Your task to perform on an android device: toggle translation in the chrome app Image 0: 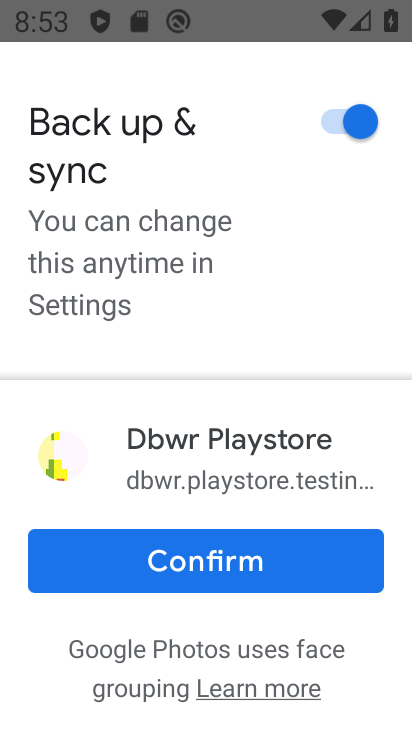
Step 0: press home button
Your task to perform on an android device: toggle translation in the chrome app Image 1: 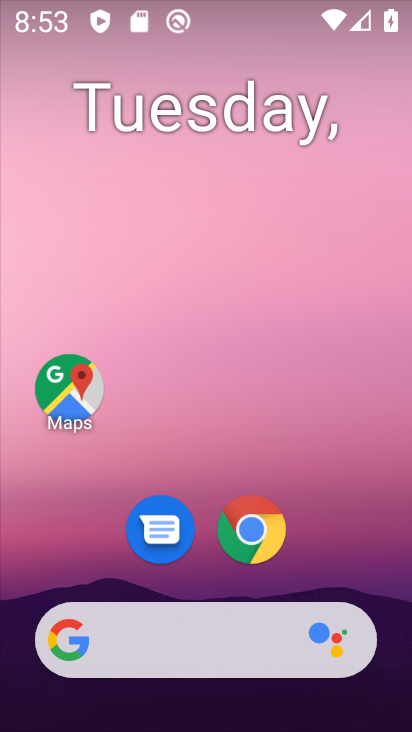
Step 1: click (250, 533)
Your task to perform on an android device: toggle translation in the chrome app Image 2: 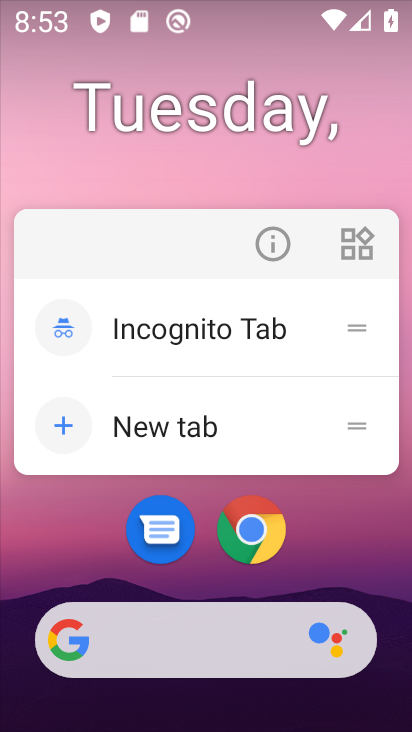
Step 2: click (253, 538)
Your task to perform on an android device: toggle translation in the chrome app Image 3: 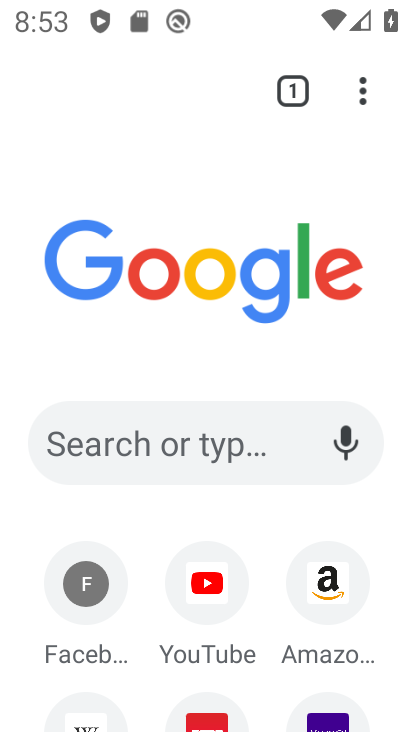
Step 3: click (363, 90)
Your task to perform on an android device: toggle translation in the chrome app Image 4: 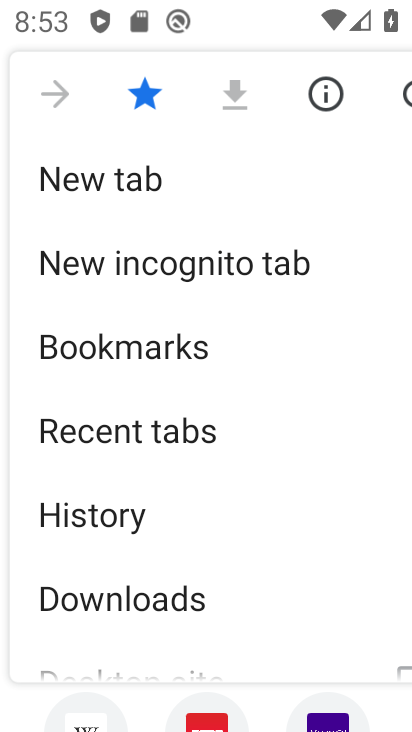
Step 4: drag from (260, 612) to (266, 391)
Your task to perform on an android device: toggle translation in the chrome app Image 5: 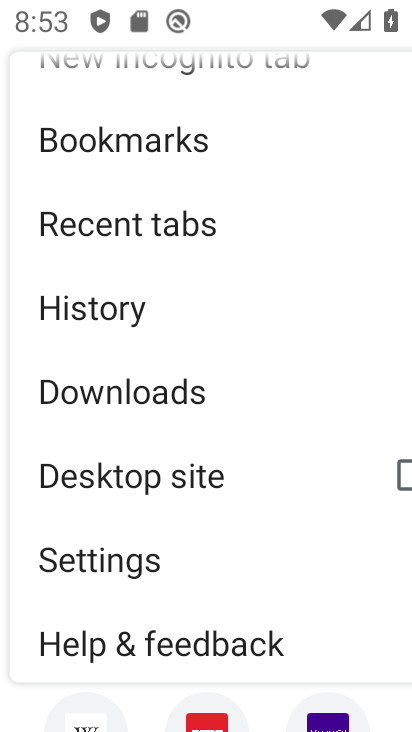
Step 5: click (118, 557)
Your task to perform on an android device: toggle translation in the chrome app Image 6: 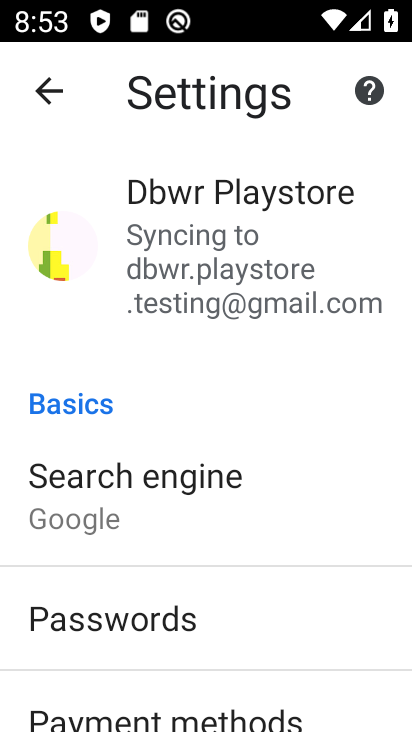
Step 6: drag from (283, 657) to (267, 350)
Your task to perform on an android device: toggle translation in the chrome app Image 7: 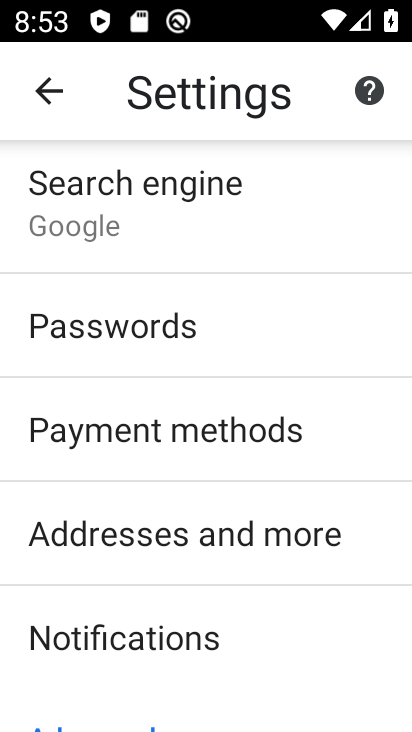
Step 7: drag from (327, 600) to (313, 357)
Your task to perform on an android device: toggle translation in the chrome app Image 8: 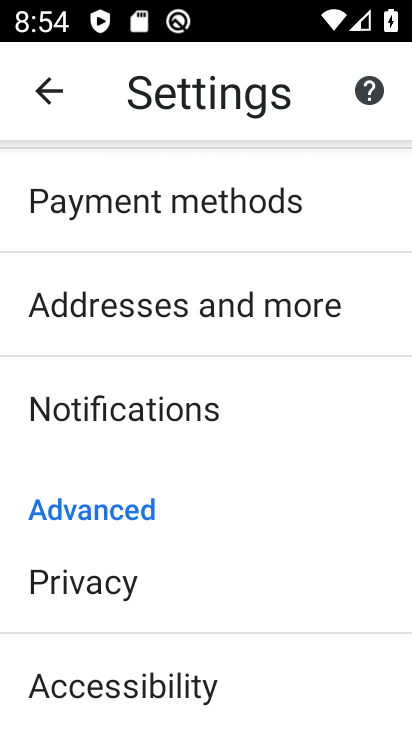
Step 8: drag from (257, 645) to (308, 388)
Your task to perform on an android device: toggle translation in the chrome app Image 9: 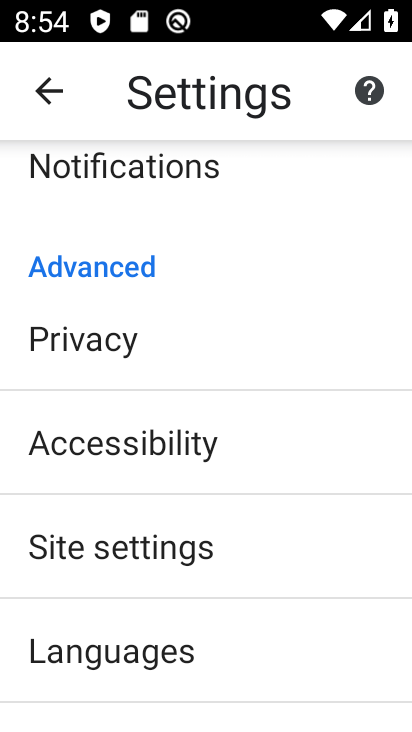
Step 9: click (97, 649)
Your task to perform on an android device: toggle translation in the chrome app Image 10: 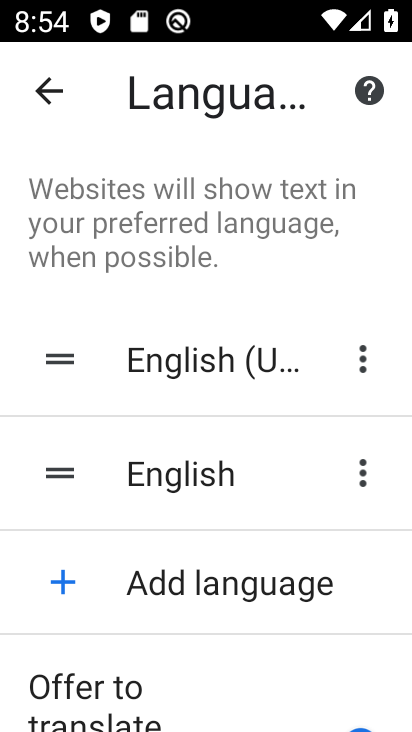
Step 10: drag from (330, 664) to (260, 307)
Your task to perform on an android device: toggle translation in the chrome app Image 11: 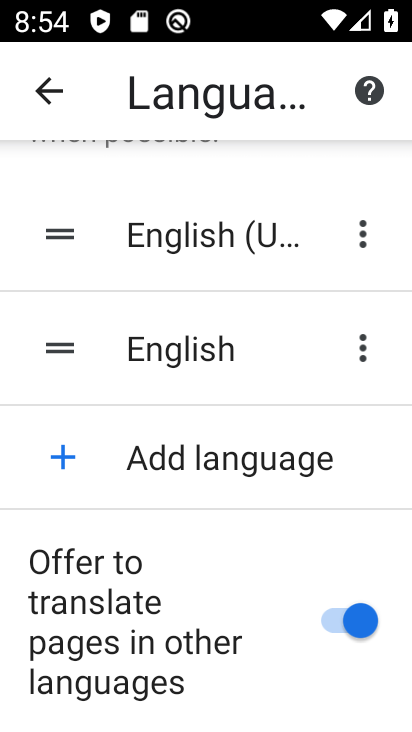
Step 11: click (334, 625)
Your task to perform on an android device: toggle translation in the chrome app Image 12: 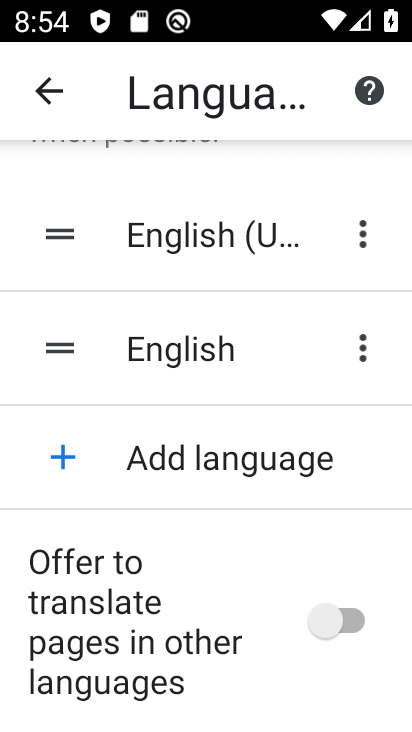
Step 12: task complete